Your task to perform on an android device: Open Google Image 0: 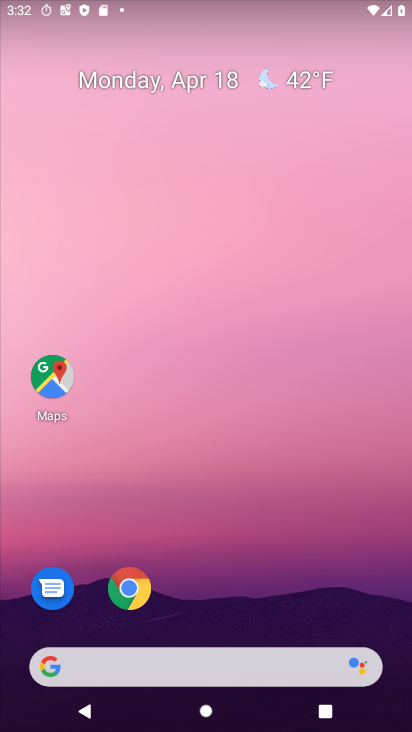
Step 0: click (30, 674)
Your task to perform on an android device: Open Google Image 1: 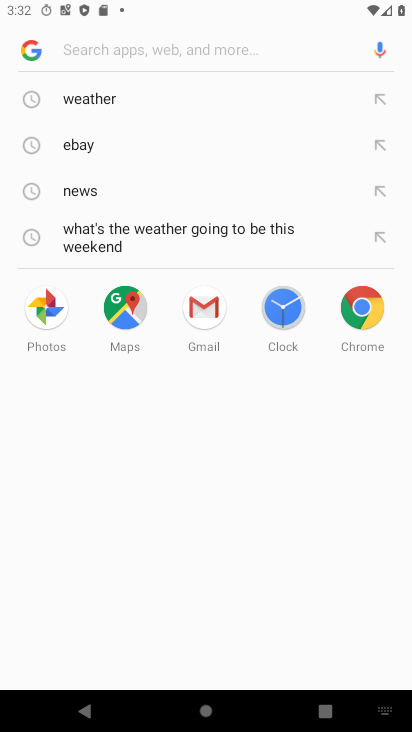
Step 1: click (32, 44)
Your task to perform on an android device: Open Google Image 2: 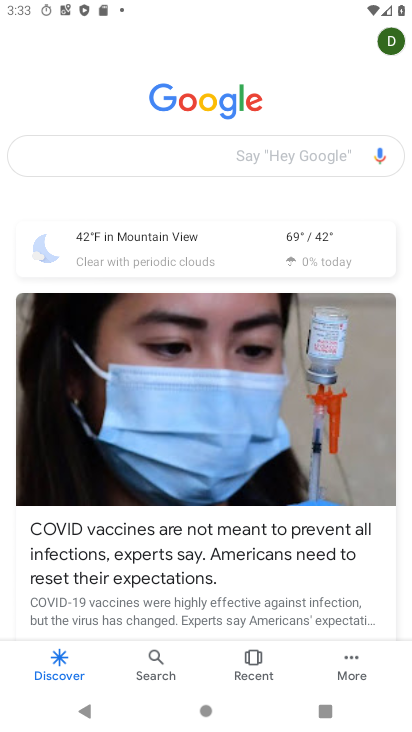
Step 2: task complete